Your task to perform on an android device: turn off notifications settings in the gmail app Image 0: 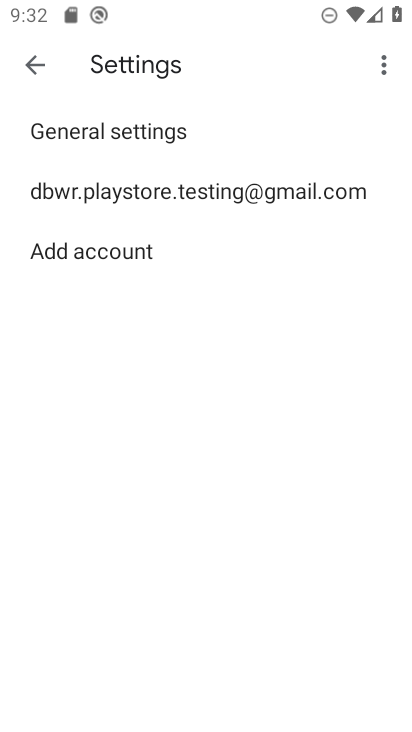
Step 0: click (175, 190)
Your task to perform on an android device: turn off notifications settings in the gmail app Image 1: 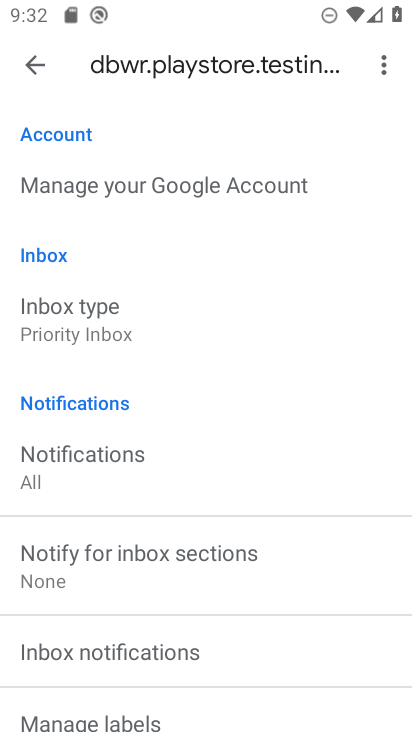
Step 1: click (65, 467)
Your task to perform on an android device: turn off notifications settings in the gmail app Image 2: 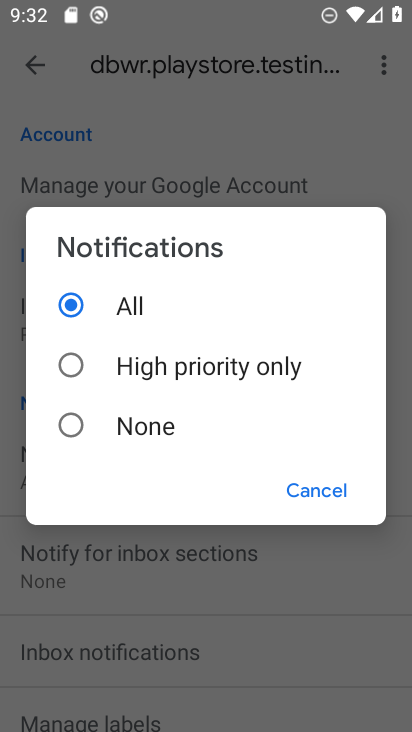
Step 2: click (71, 424)
Your task to perform on an android device: turn off notifications settings in the gmail app Image 3: 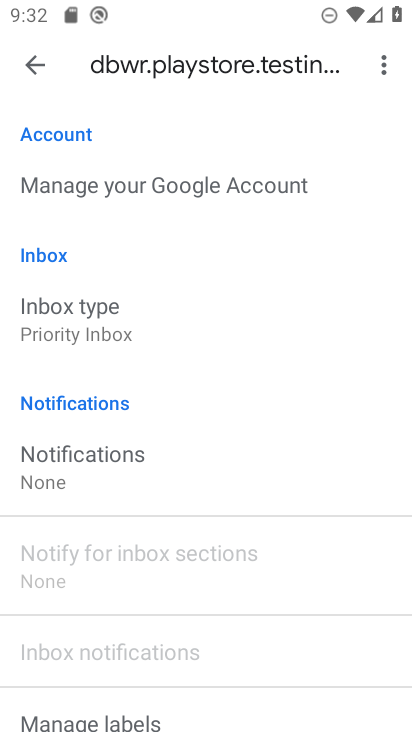
Step 3: task complete